Your task to perform on an android device: Open battery settings Image 0: 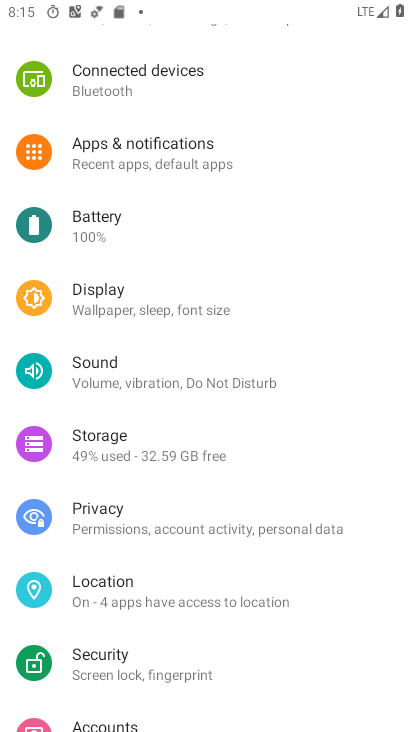
Step 0: click (146, 221)
Your task to perform on an android device: Open battery settings Image 1: 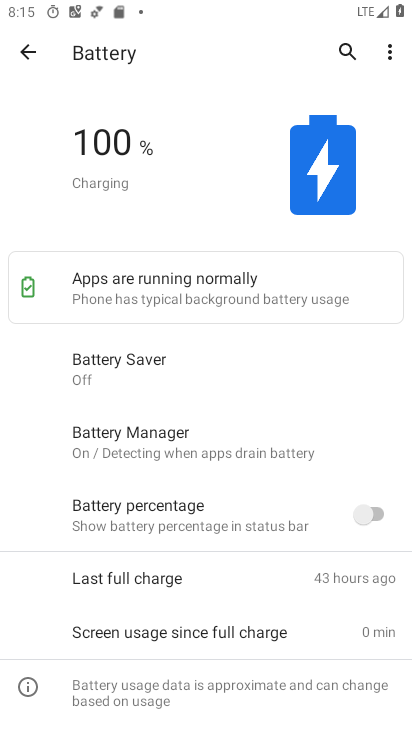
Step 1: task complete